Your task to perform on an android device: Do I have any events this weekend? Image 0: 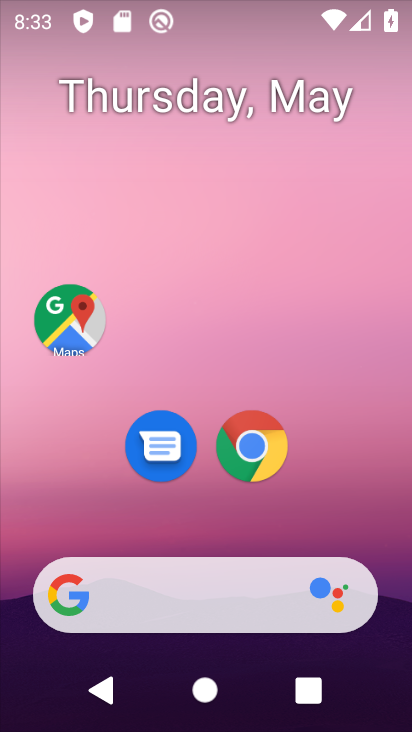
Step 0: drag from (396, 611) to (402, 40)
Your task to perform on an android device: Do I have any events this weekend? Image 1: 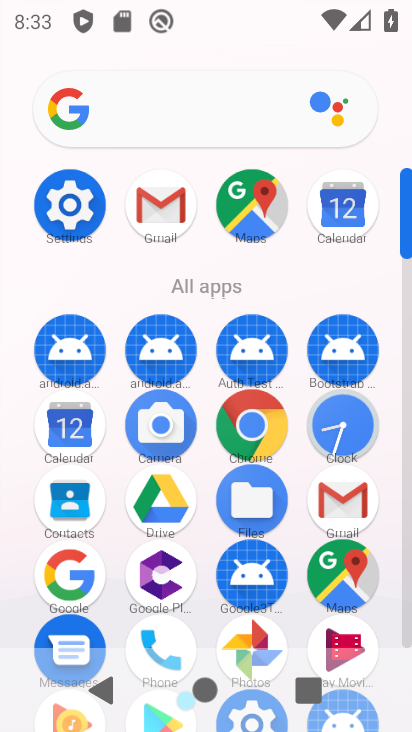
Step 1: click (406, 626)
Your task to perform on an android device: Do I have any events this weekend? Image 2: 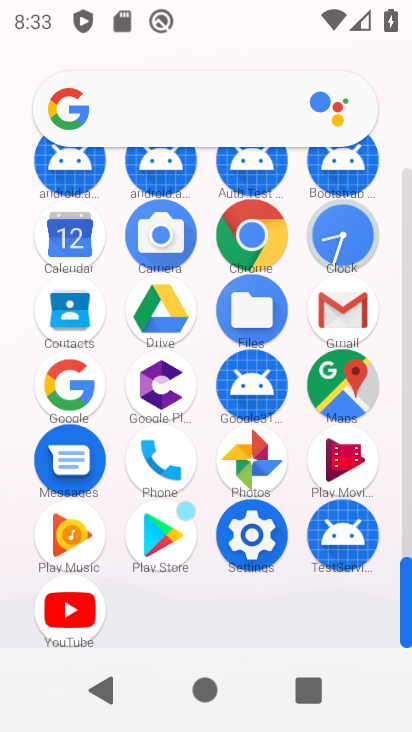
Step 2: click (68, 232)
Your task to perform on an android device: Do I have any events this weekend? Image 3: 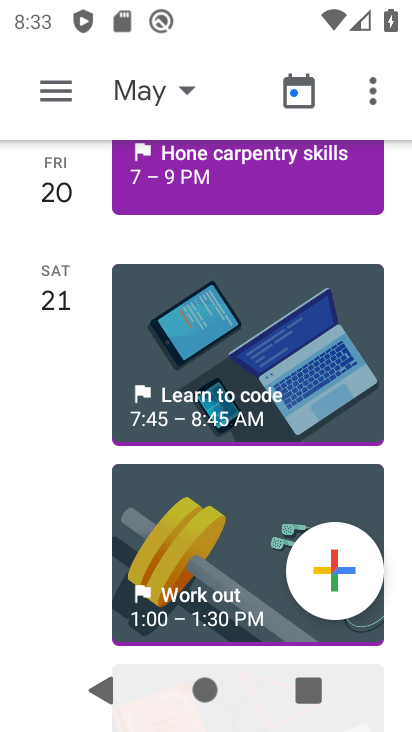
Step 3: click (47, 93)
Your task to perform on an android device: Do I have any events this weekend? Image 4: 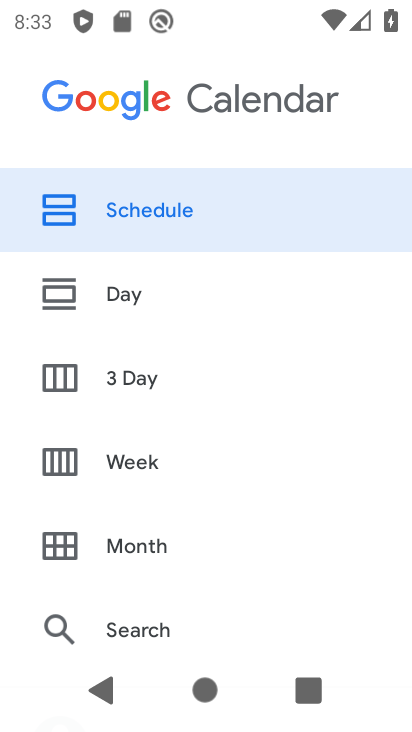
Step 4: click (153, 461)
Your task to perform on an android device: Do I have any events this weekend? Image 5: 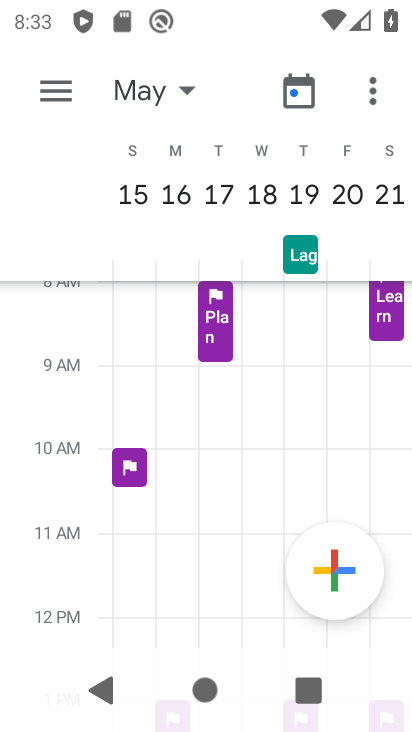
Step 5: task complete